Your task to perform on an android device: Go to location settings Image 0: 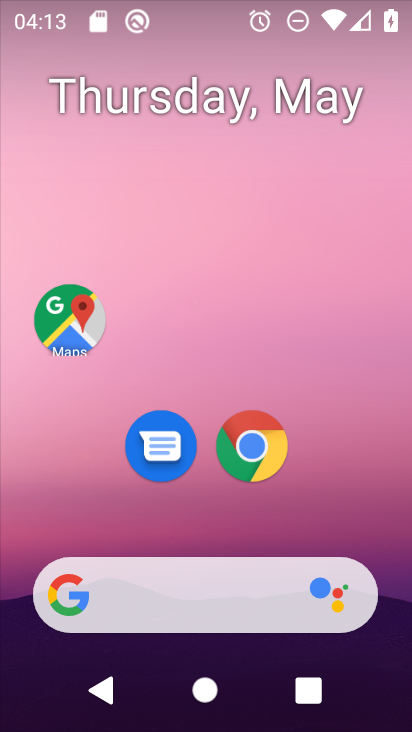
Step 0: drag from (350, 551) to (334, 21)
Your task to perform on an android device: Go to location settings Image 1: 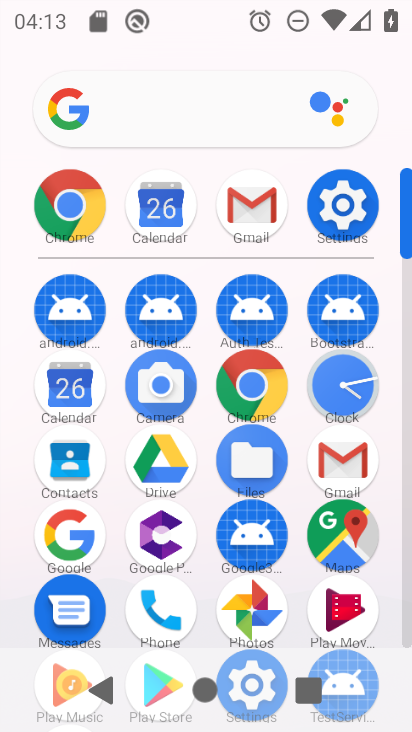
Step 1: click (339, 209)
Your task to perform on an android device: Go to location settings Image 2: 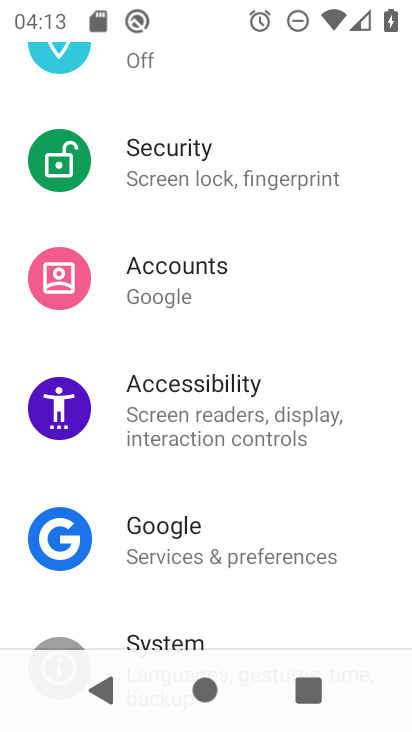
Step 2: drag from (372, 502) to (339, 133)
Your task to perform on an android device: Go to location settings Image 3: 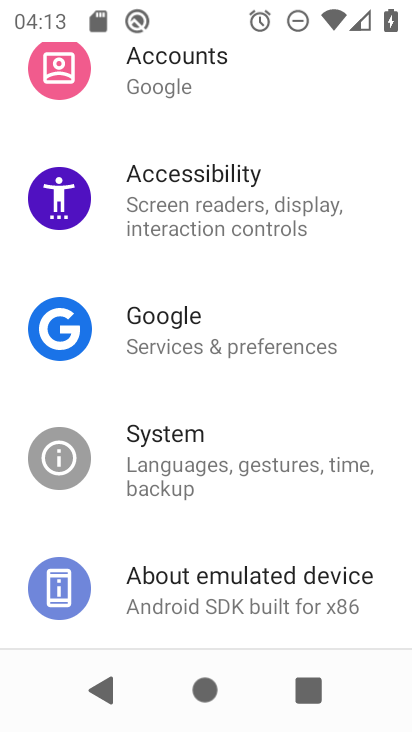
Step 3: drag from (352, 107) to (313, 718)
Your task to perform on an android device: Go to location settings Image 4: 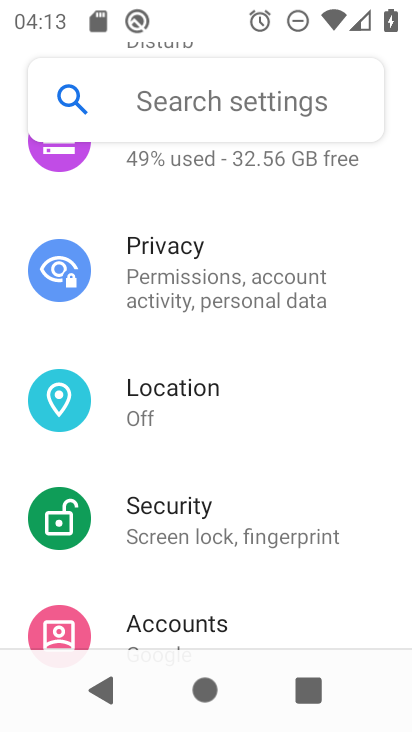
Step 4: click (135, 417)
Your task to perform on an android device: Go to location settings Image 5: 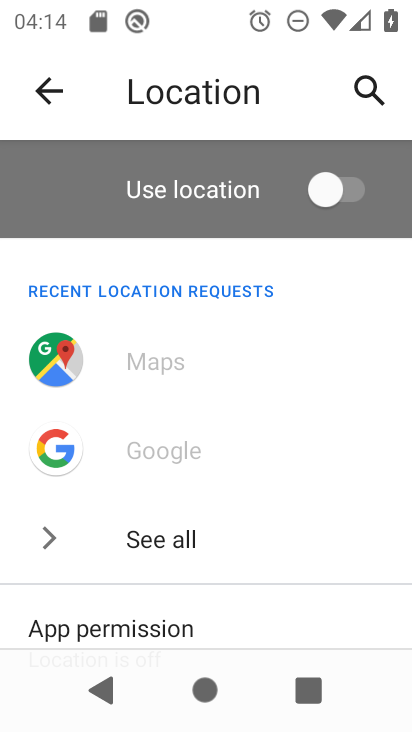
Step 5: task complete